Your task to perform on an android device: Go to internet settings Image 0: 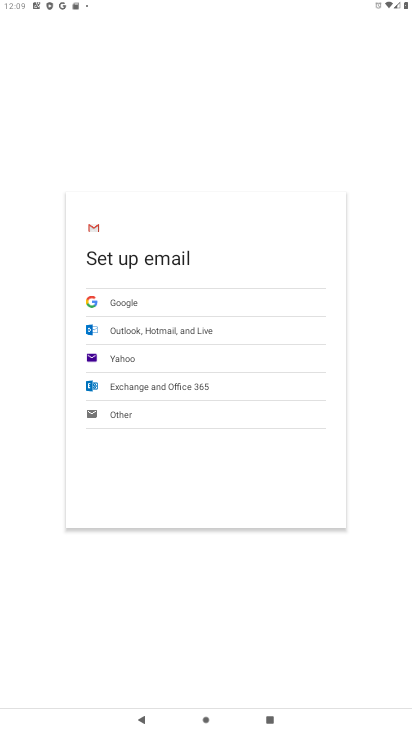
Step 0: press home button
Your task to perform on an android device: Go to internet settings Image 1: 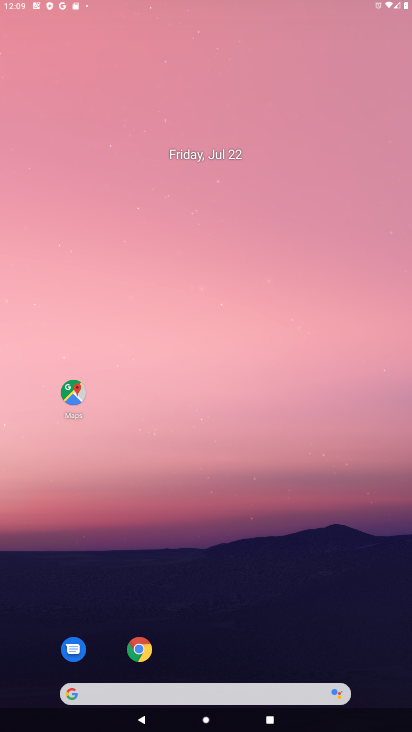
Step 1: drag from (311, 523) to (194, 98)
Your task to perform on an android device: Go to internet settings Image 2: 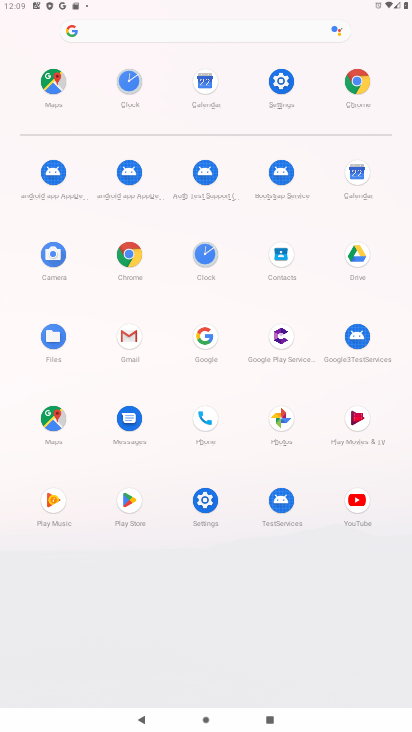
Step 2: click (281, 69)
Your task to perform on an android device: Go to internet settings Image 3: 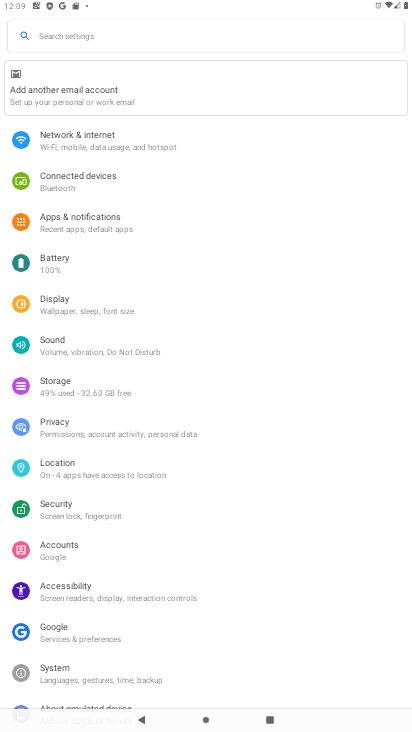
Step 3: click (162, 158)
Your task to perform on an android device: Go to internet settings Image 4: 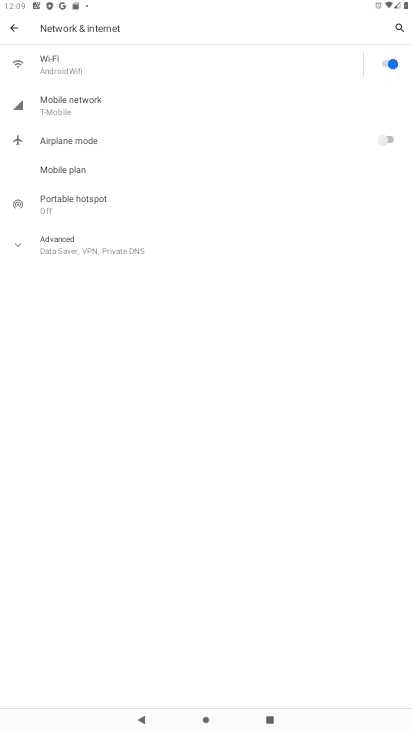
Step 4: click (59, 257)
Your task to perform on an android device: Go to internet settings Image 5: 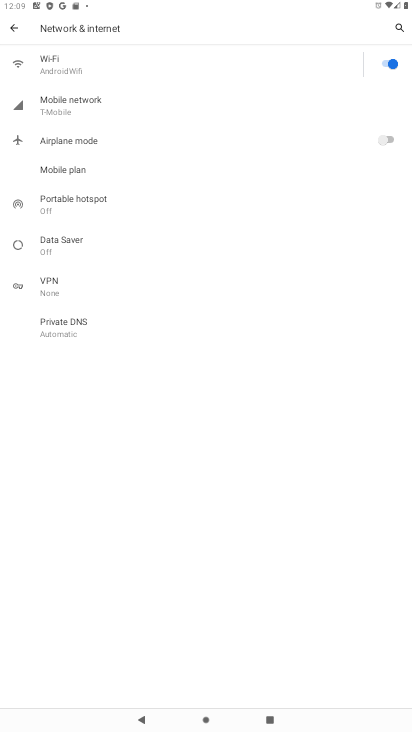
Step 5: task complete